Your task to perform on an android device: set the timer Image 0: 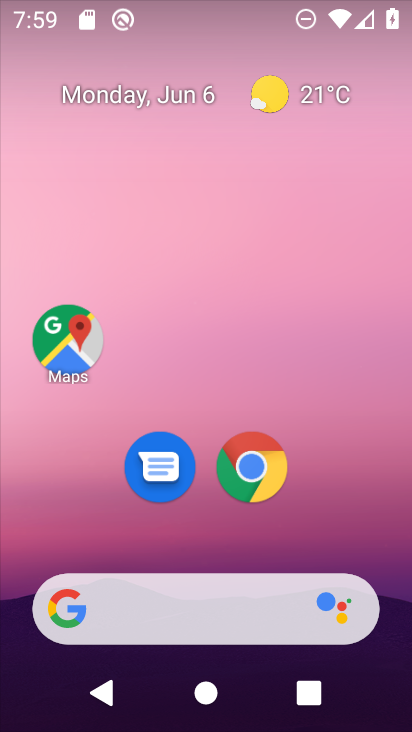
Step 0: drag from (364, 529) to (389, 160)
Your task to perform on an android device: set the timer Image 1: 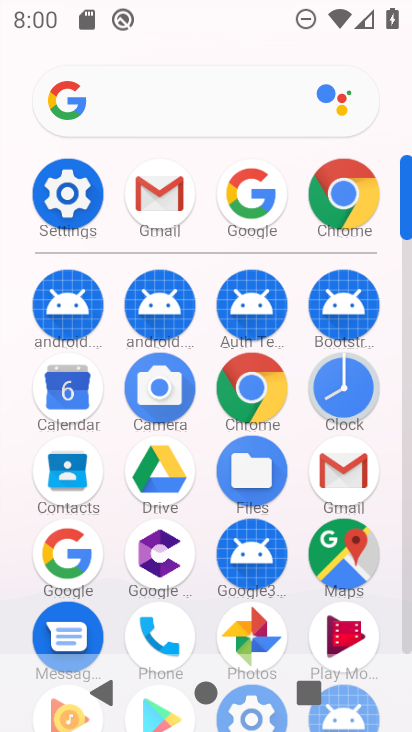
Step 1: click (338, 390)
Your task to perform on an android device: set the timer Image 2: 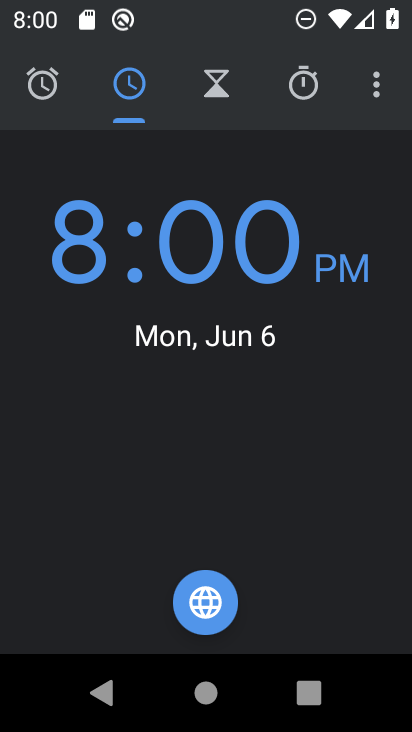
Step 2: click (56, 101)
Your task to perform on an android device: set the timer Image 3: 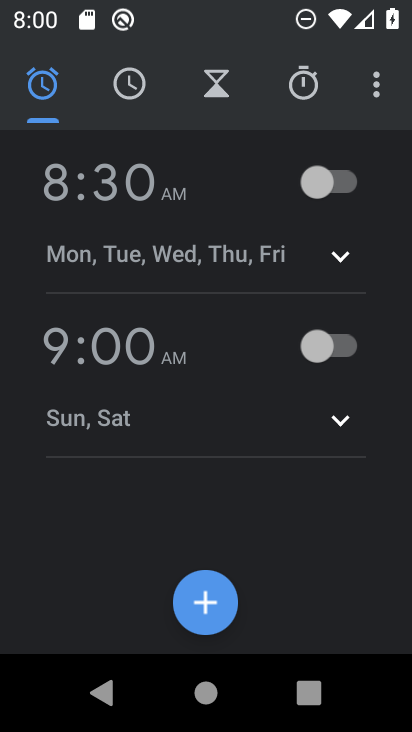
Step 3: click (210, 593)
Your task to perform on an android device: set the timer Image 4: 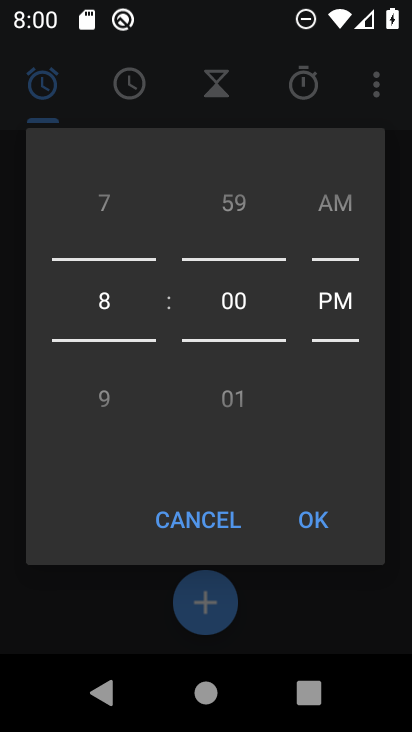
Step 4: click (319, 519)
Your task to perform on an android device: set the timer Image 5: 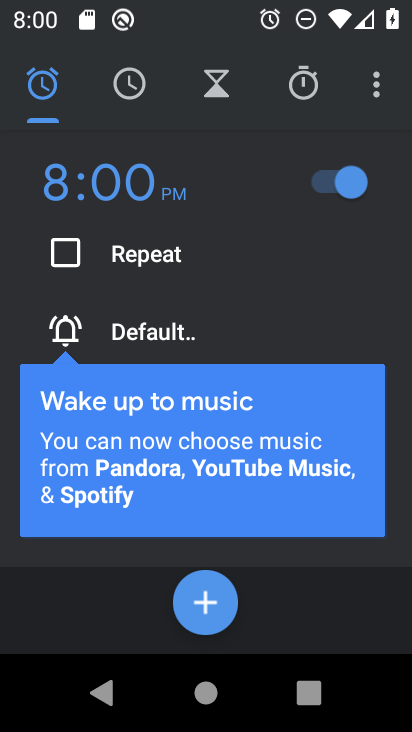
Step 5: task complete